Your task to perform on an android device: install app "Fetch Rewards" Image 0: 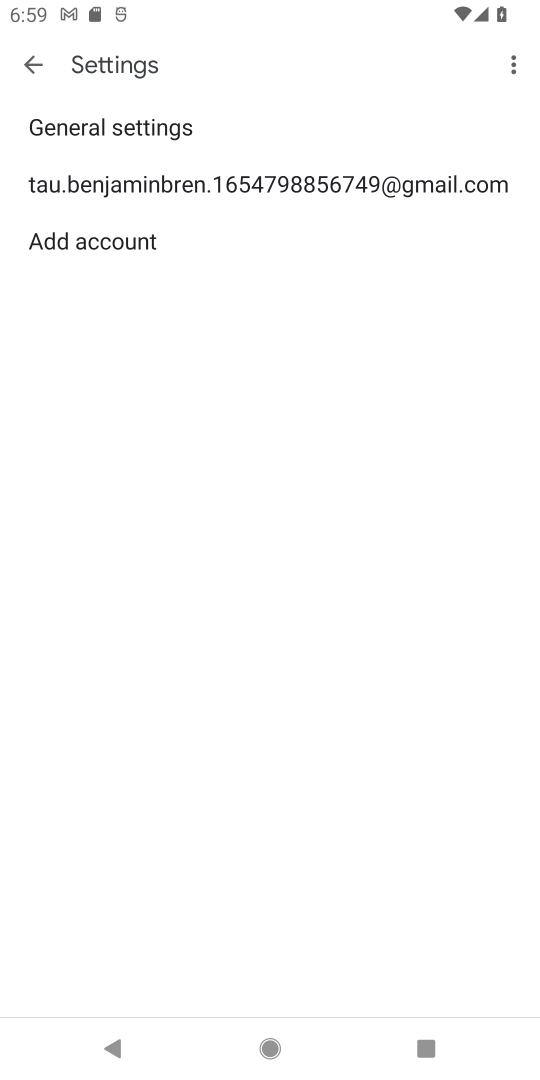
Step 0: drag from (290, 287) to (536, 863)
Your task to perform on an android device: install app "Fetch Rewards" Image 1: 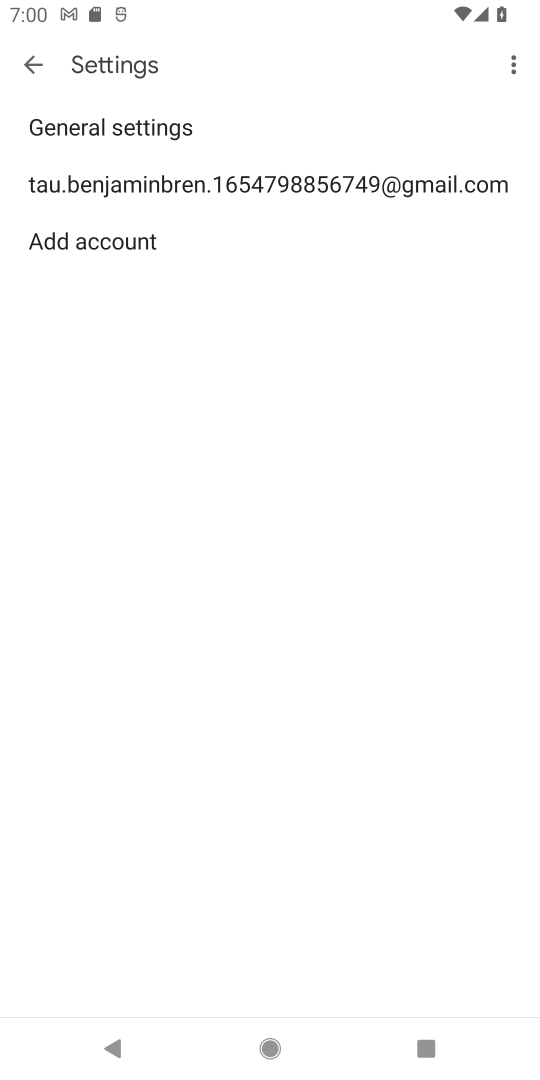
Step 1: press home button
Your task to perform on an android device: install app "Fetch Rewards" Image 2: 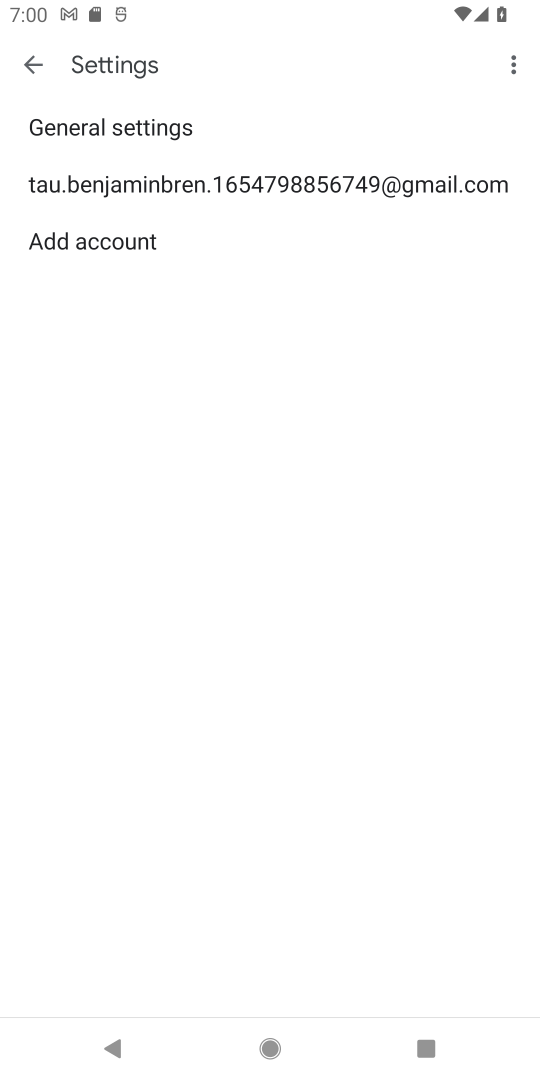
Step 2: press home button
Your task to perform on an android device: install app "Fetch Rewards" Image 3: 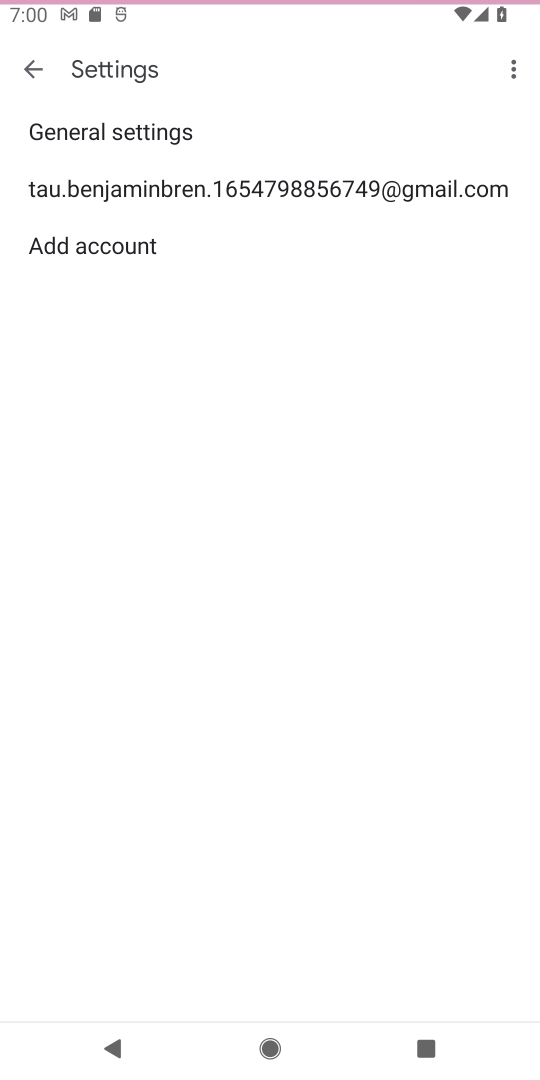
Step 3: drag from (536, 863) to (122, 983)
Your task to perform on an android device: install app "Fetch Rewards" Image 4: 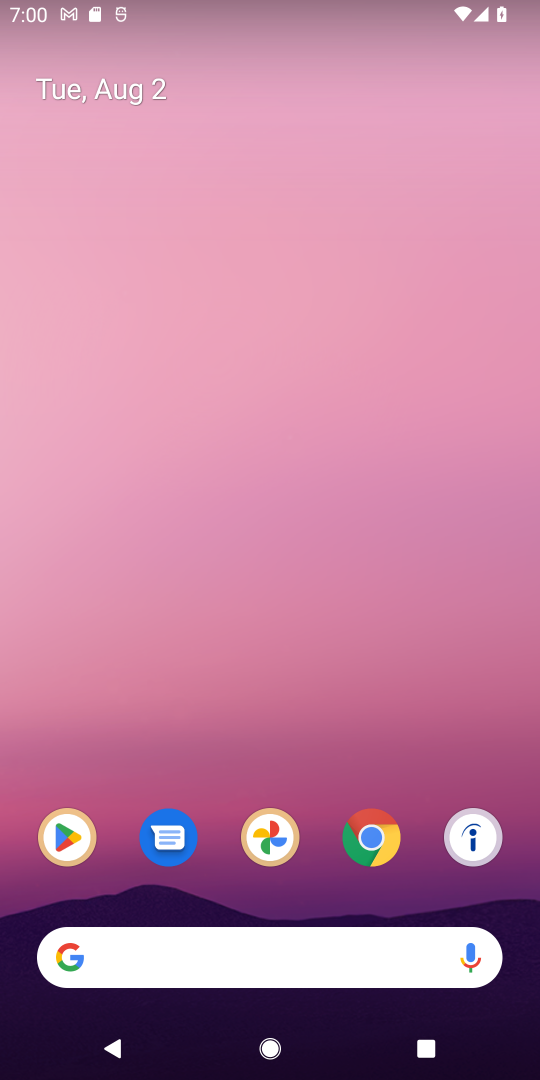
Step 4: drag from (301, 895) to (403, 316)
Your task to perform on an android device: install app "Fetch Rewards" Image 5: 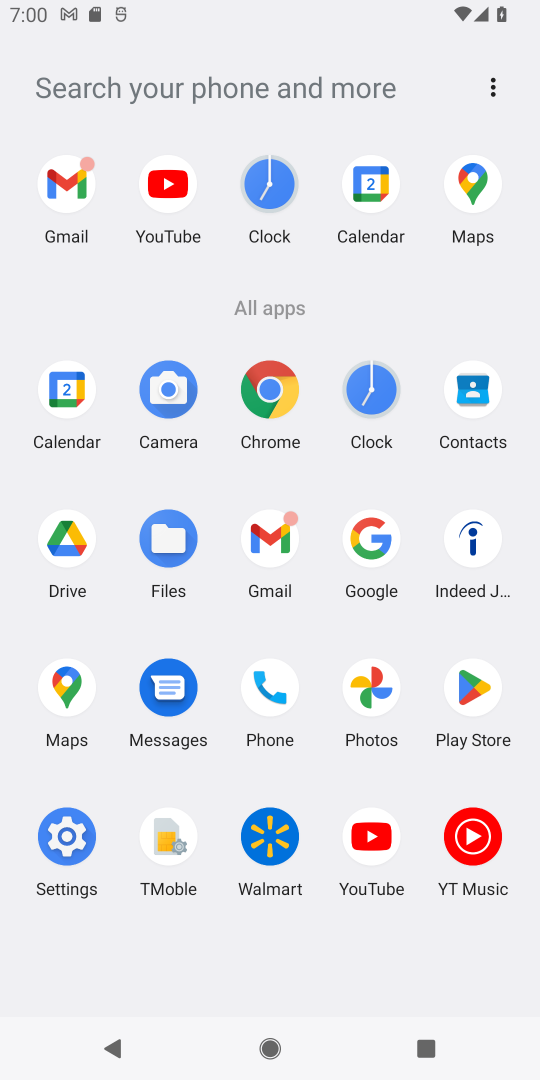
Step 5: click (460, 687)
Your task to perform on an android device: install app "Fetch Rewards" Image 6: 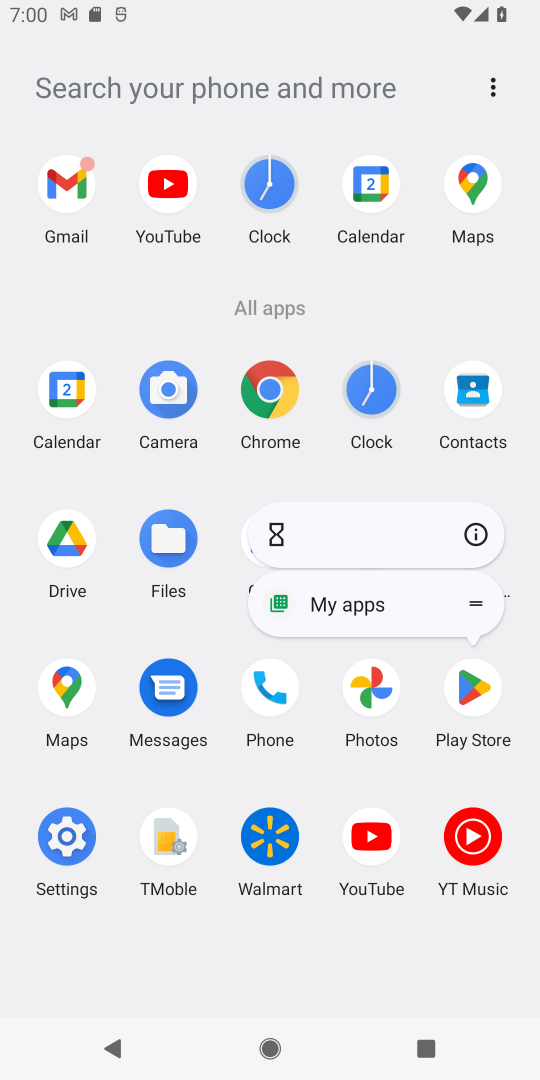
Step 6: click (471, 538)
Your task to perform on an android device: install app "Fetch Rewards" Image 7: 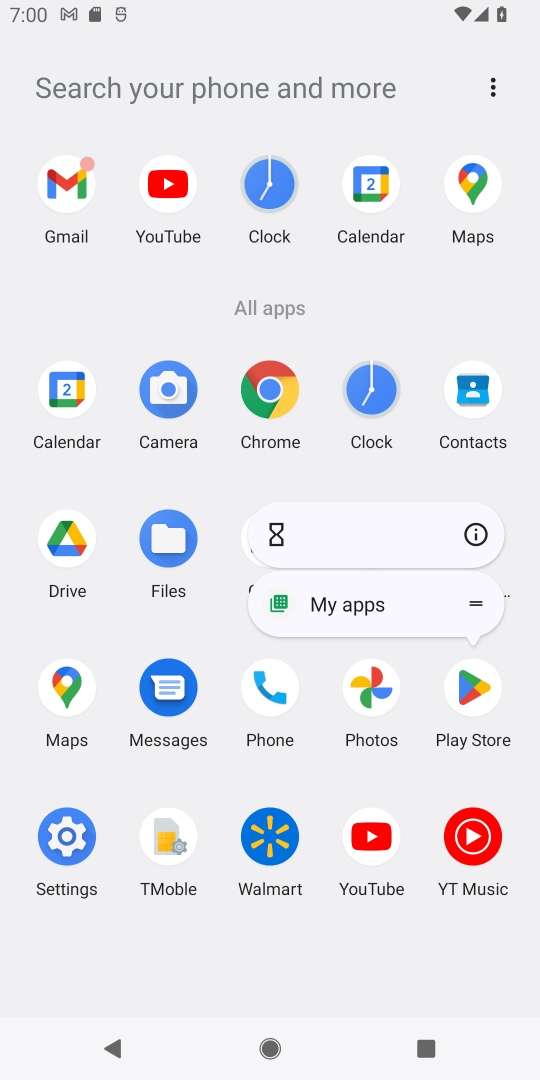
Step 7: click (475, 524)
Your task to perform on an android device: install app "Fetch Rewards" Image 8: 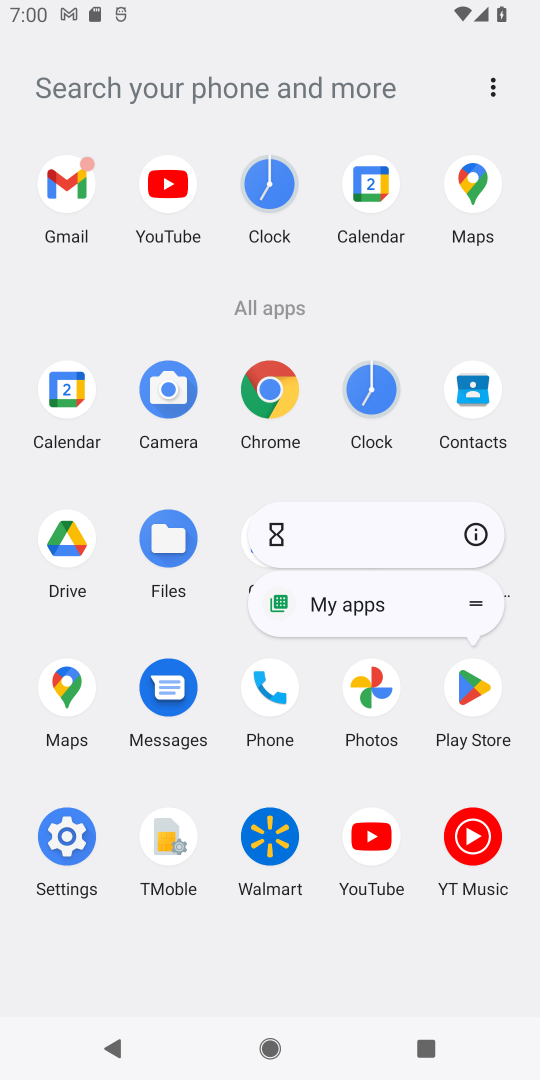
Step 8: click (480, 530)
Your task to perform on an android device: install app "Fetch Rewards" Image 9: 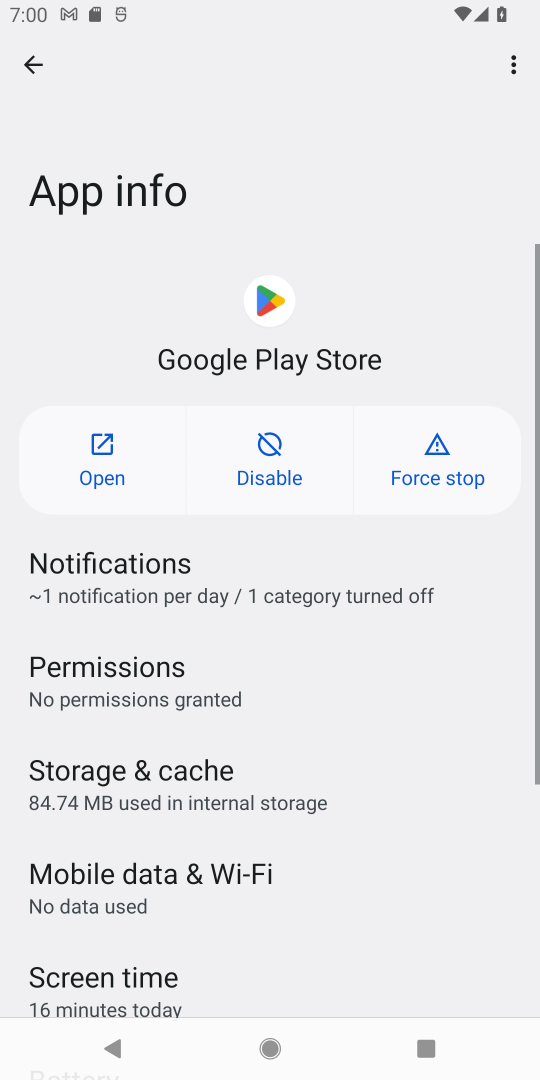
Step 9: click (98, 452)
Your task to perform on an android device: install app "Fetch Rewards" Image 10: 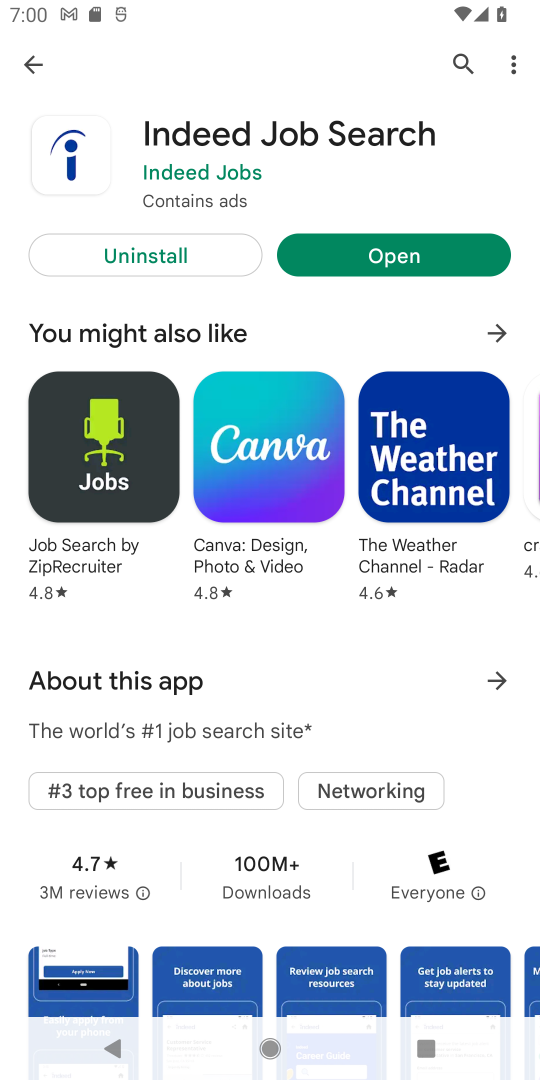
Step 10: drag from (257, 162) to (252, 868)
Your task to perform on an android device: install app "Fetch Rewards" Image 11: 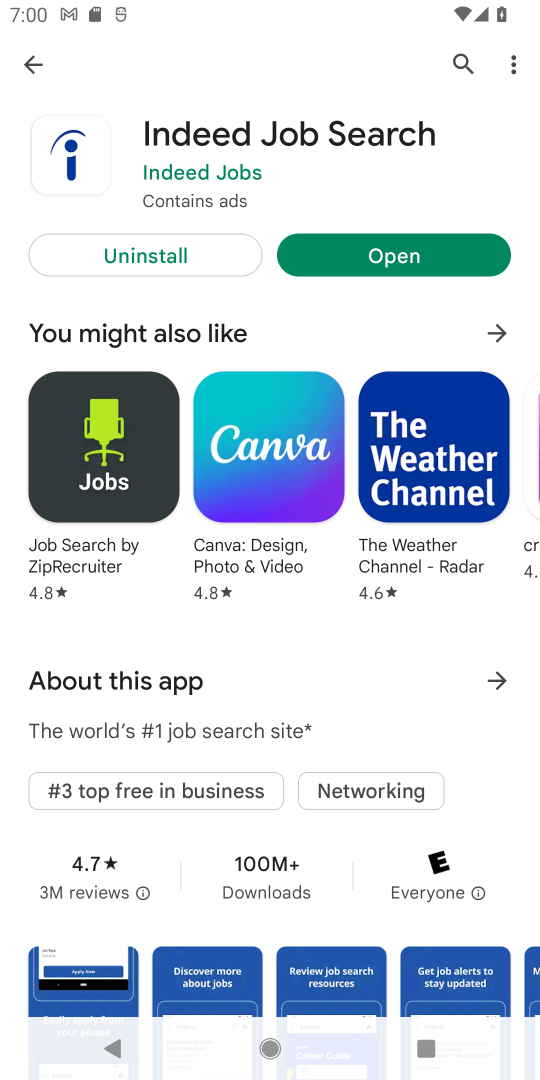
Step 11: drag from (281, 120) to (295, 627)
Your task to perform on an android device: install app "Fetch Rewards" Image 12: 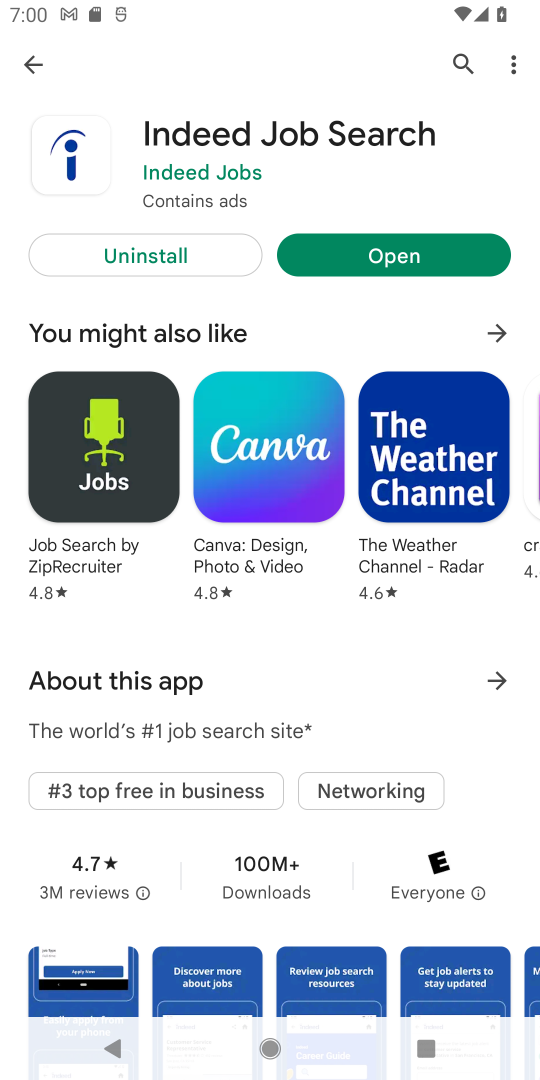
Step 12: drag from (257, 162) to (316, 650)
Your task to perform on an android device: install app "Fetch Rewards" Image 13: 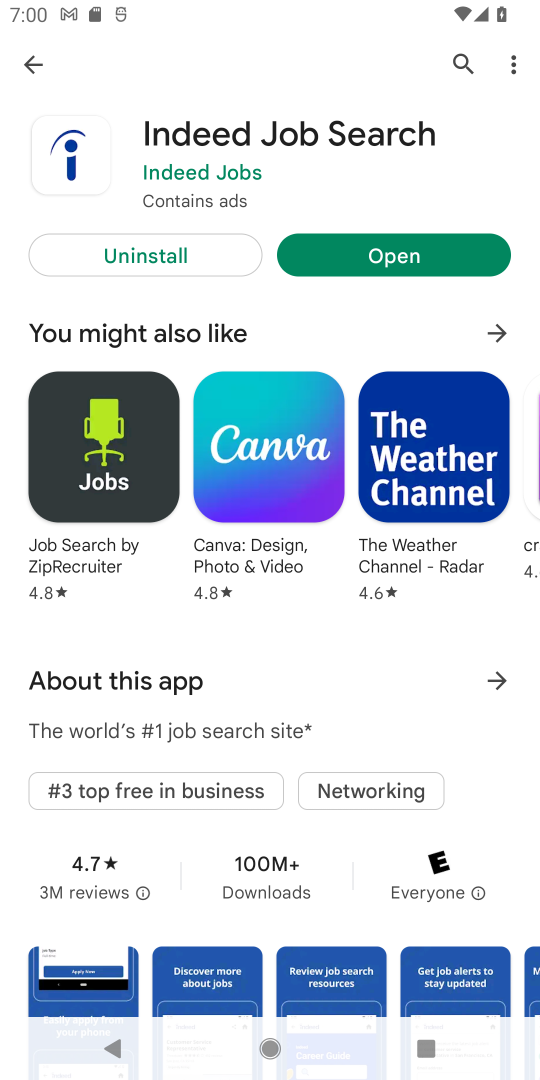
Step 13: drag from (248, 463) to (275, 624)
Your task to perform on an android device: install app "Fetch Rewards" Image 14: 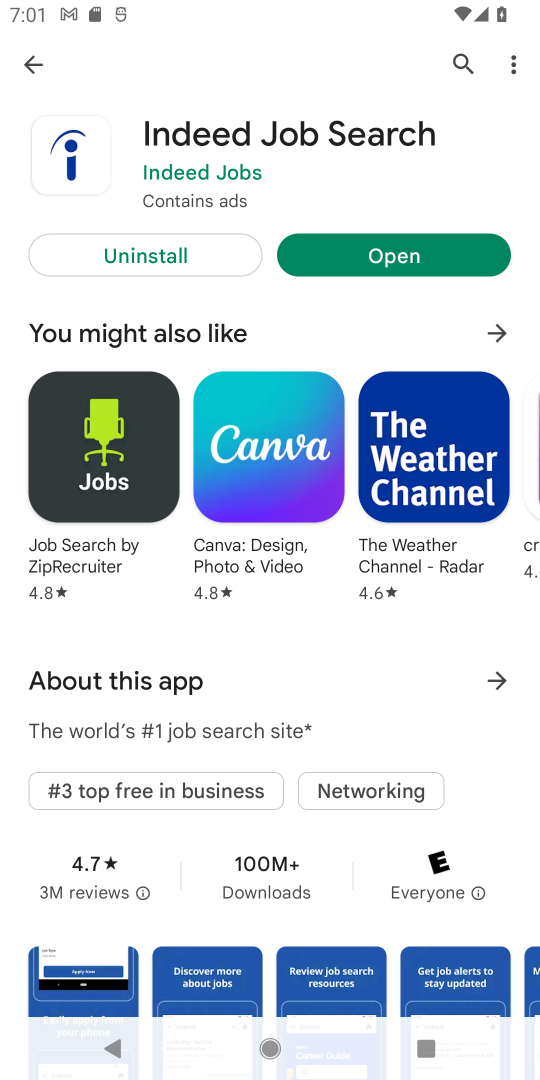
Step 14: click (462, 77)
Your task to perform on an android device: install app "Fetch Rewards" Image 15: 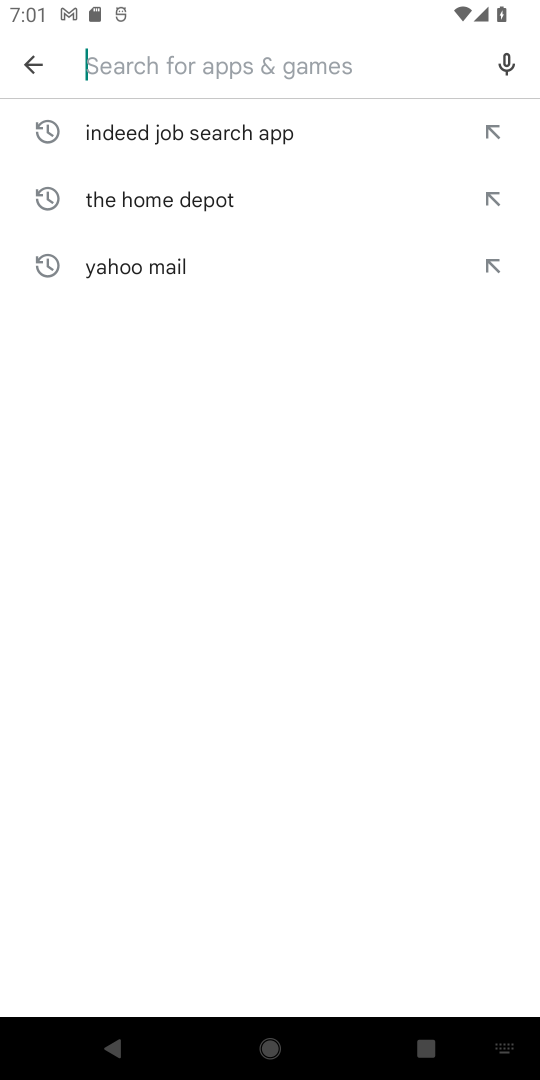
Step 15: type "Fetch Rewards"
Your task to perform on an android device: install app "Fetch Rewards" Image 16: 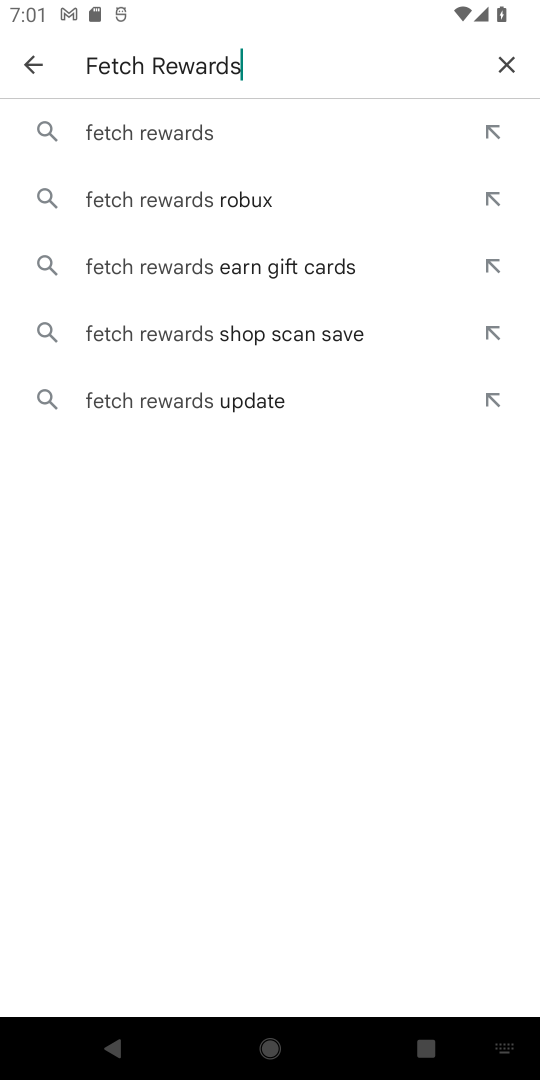
Step 16: click (187, 125)
Your task to perform on an android device: install app "Fetch Rewards" Image 17: 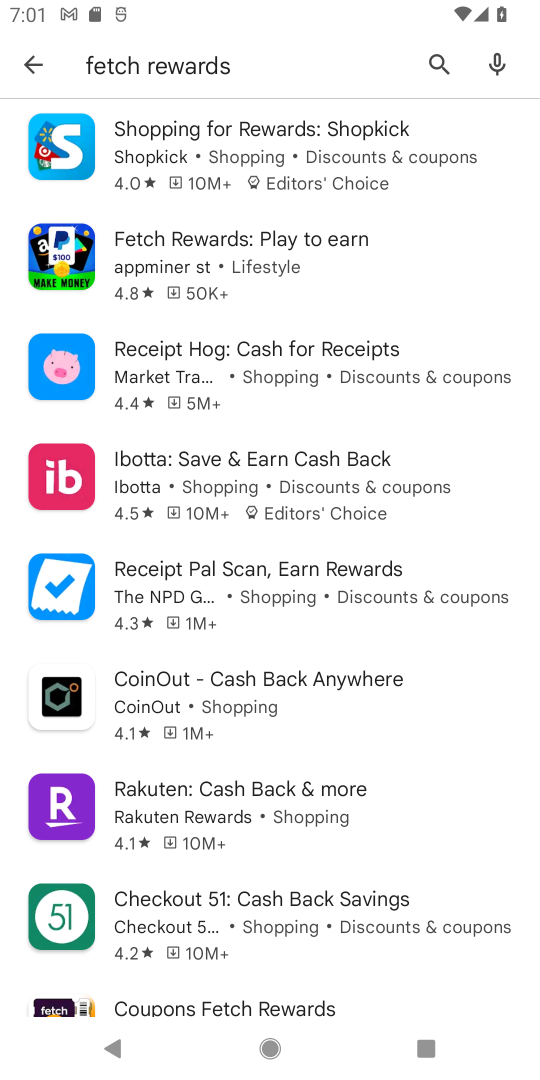
Step 17: drag from (242, 173) to (205, 482)
Your task to perform on an android device: install app "Fetch Rewards" Image 18: 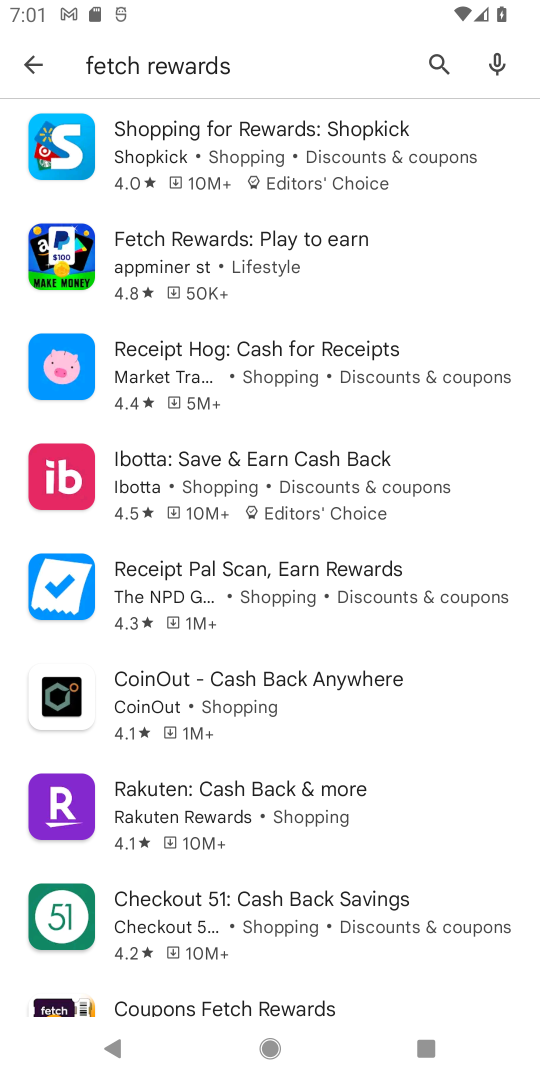
Step 18: click (249, 242)
Your task to perform on an android device: install app "Fetch Rewards" Image 19: 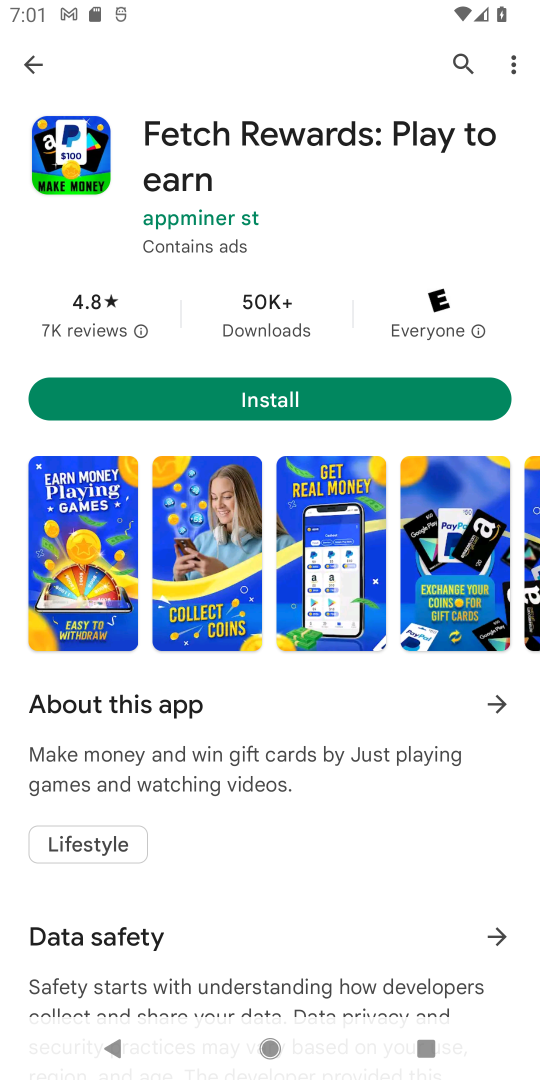
Step 19: drag from (284, 631) to (332, 923)
Your task to perform on an android device: install app "Fetch Rewards" Image 20: 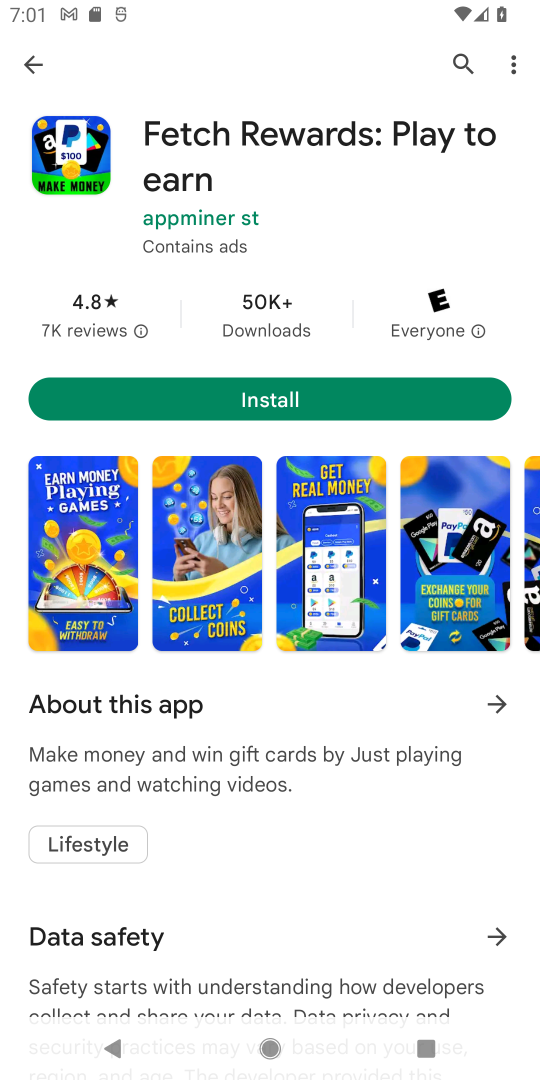
Step 20: click (233, 397)
Your task to perform on an android device: install app "Fetch Rewards" Image 21: 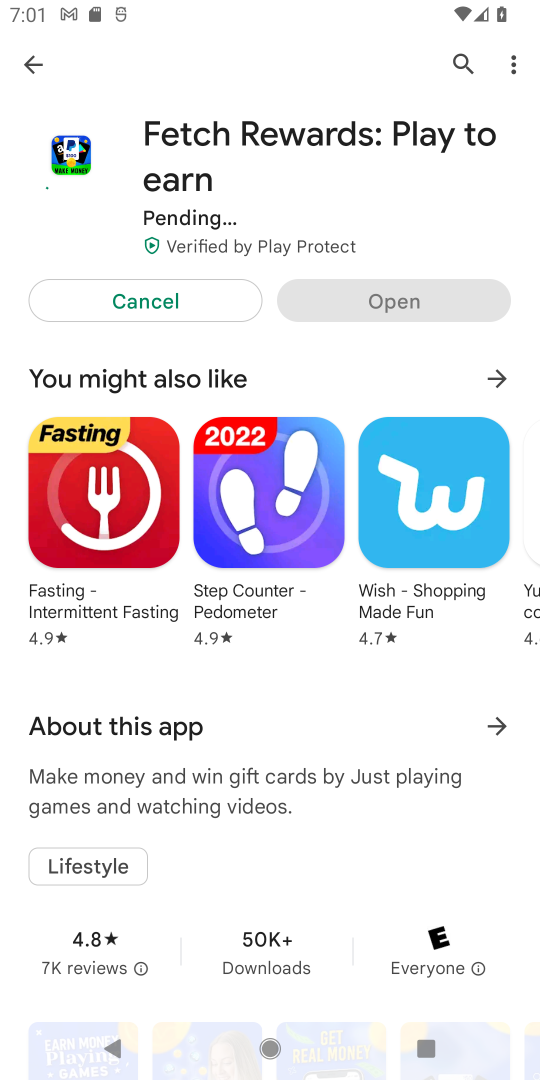
Step 21: task complete